Your task to perform on an android device: Open Amazon Image 0: 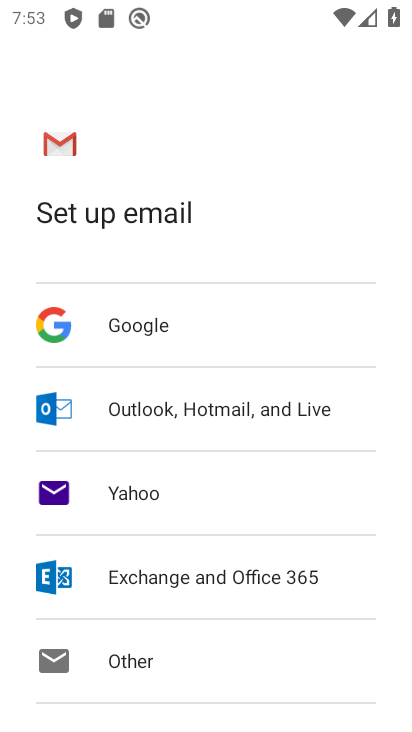
Step 0: press back button
Your task to perform on an android device: Open Amazon Image 1: 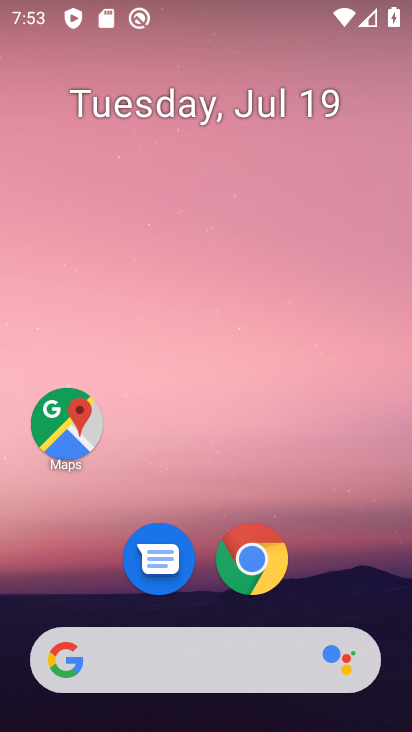
Step 1: click (205, 571)
Your task to perform on an android device: Open Amazon Image 2: 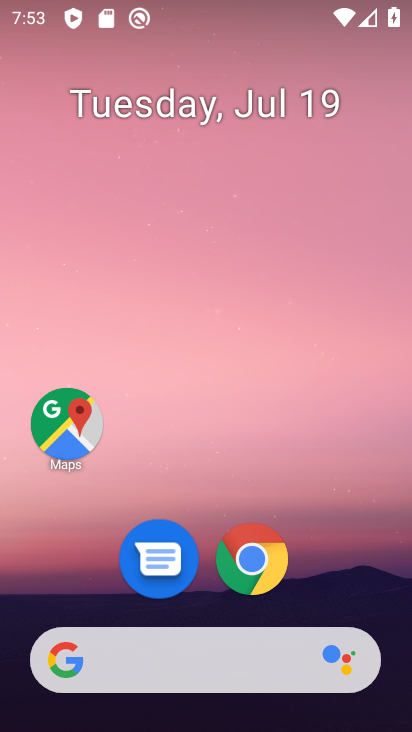
Step 2: click (224, 563)
Your task to perform on an android device: Open Amazon Image 3: 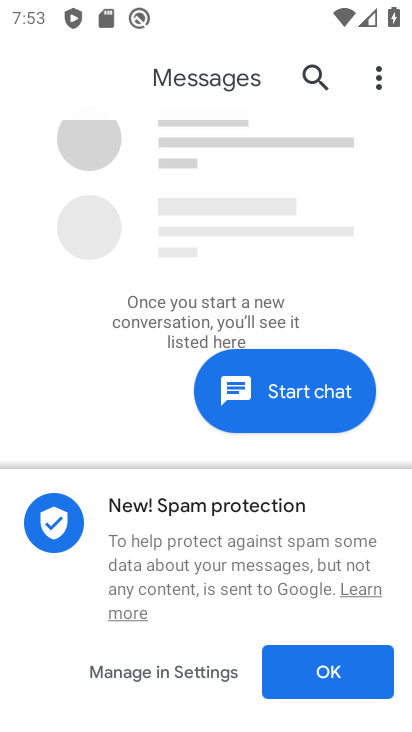
Step 3: press back button
Your task to perform on an android device: Open Amazon Image 4: 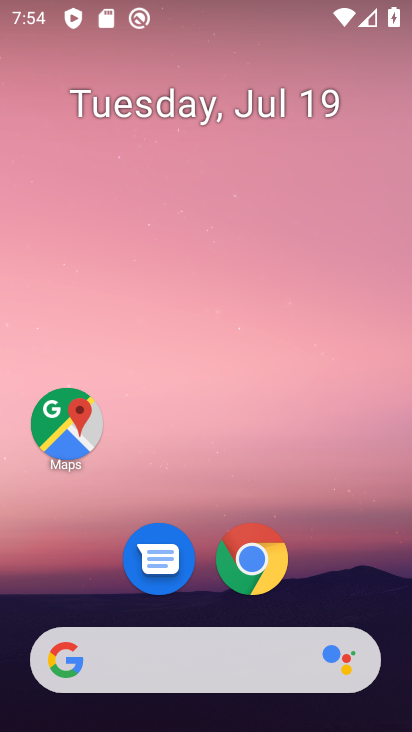
Step 4: click (236, 571)
Your task to perform on an android device: Open Amazon Image 5: 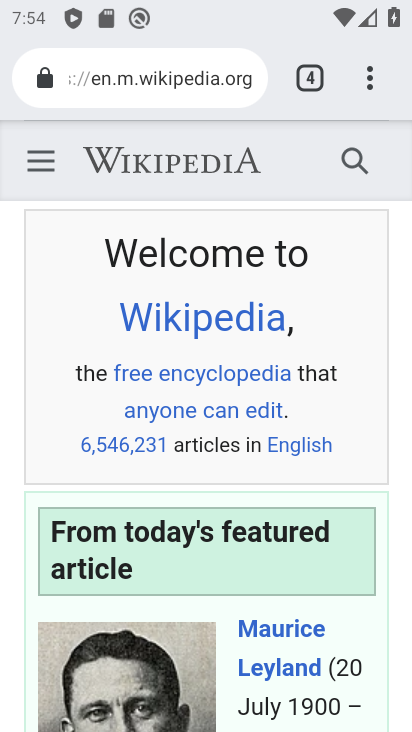
Step 5: click (307, 97)
Your task to perform on an android device: Open Amazon Image 6: 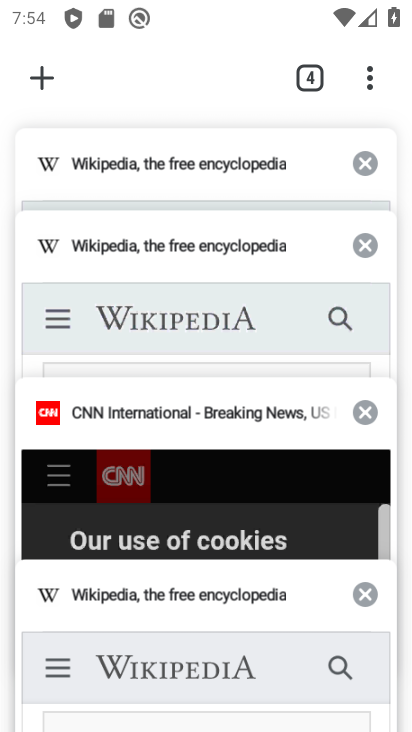
Step 6: click (26, 75)
Your task to perform on an android device: Open Amazon Image 7: 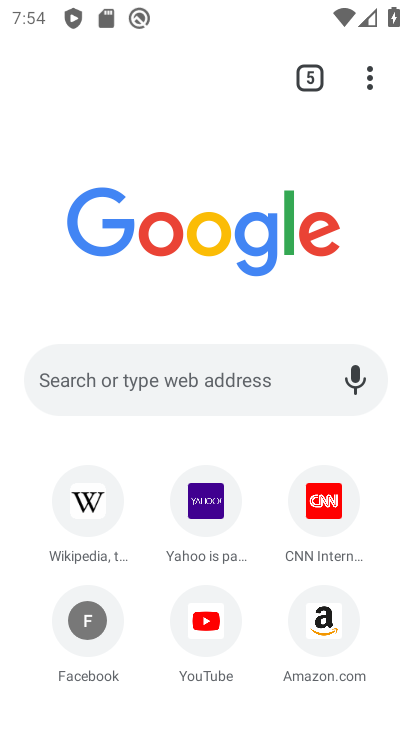
Step 7: click (297, 631)
Your task to perform on an android device: Open Amazon Image 8: 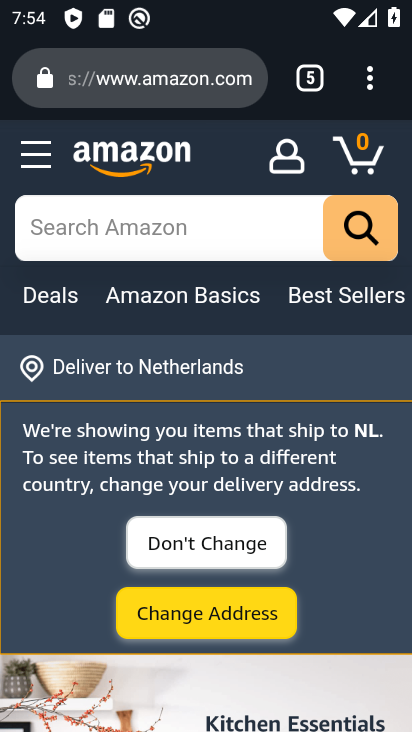
Step 8: task complete